Your task to perform on an android device: check out phone information Image 0: 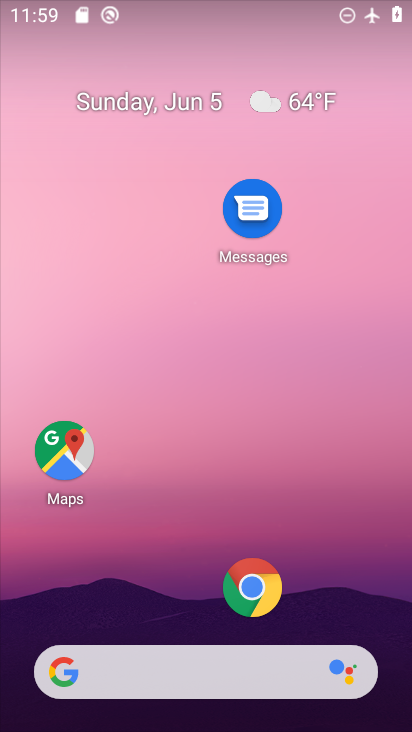
Step 0: drag from (122, 607) to (117, 275)
Your task to perform on an android device: check out phone information Image 1: 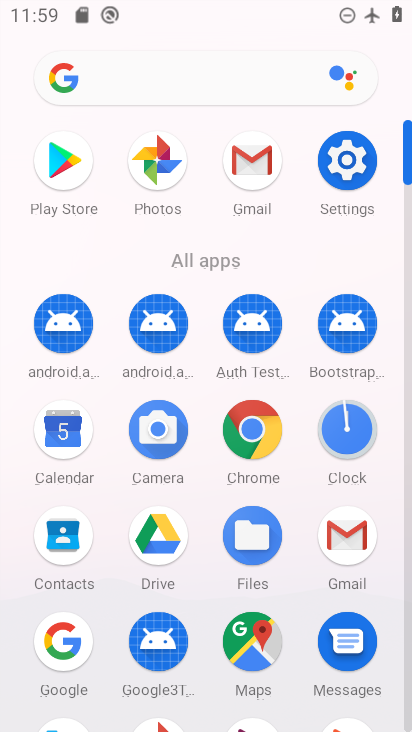
Step 1: click (359, 168)
Your task to perform on an android device: check out phone information Image 2: 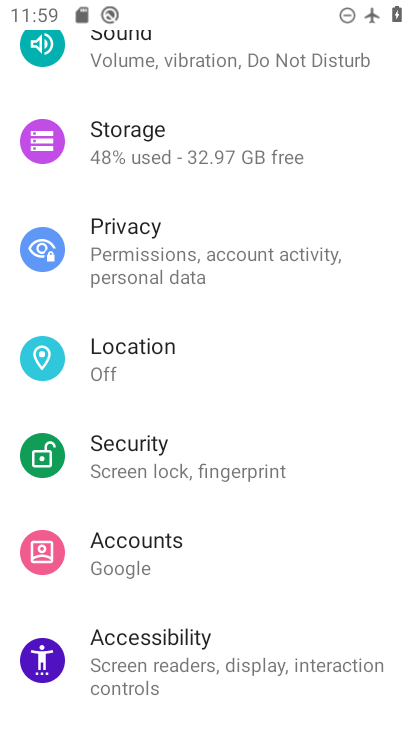
Step 2: task complete